Your task to perform on an android device: turn off wifi Image 0: 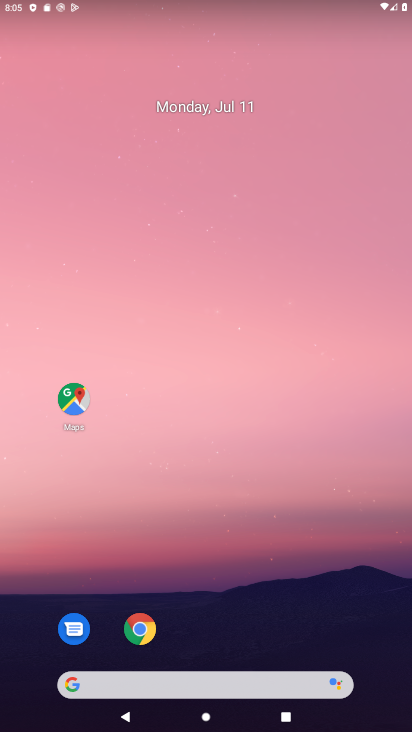
Step 0: drag from (218, 676) to (209, 113)
Your task to perform on an android device: turn off wifi Image 1: 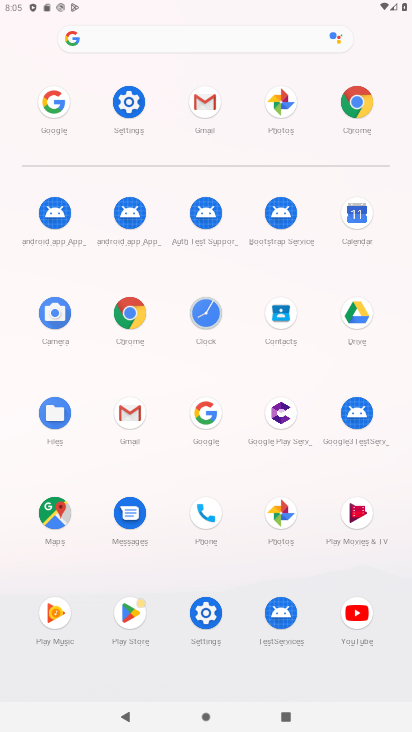
Step 1: click (128, 116)
Your task to perform on an android device: turn off wifi Image 2: 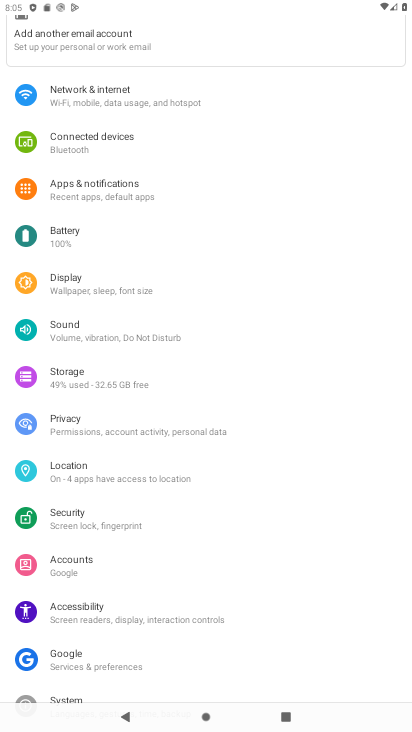
Step 2: click (149, 88)
Your task to perform on an android device: turn off wifi Image 3: 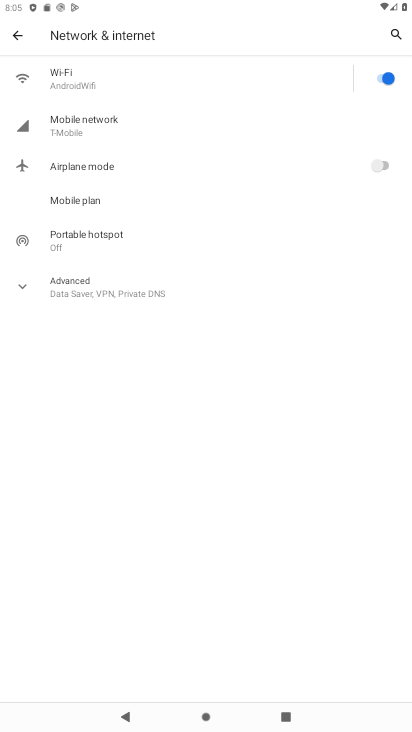
Step 3: click (375, 77)
Your task to perform on an android device: turn off wifi Image 4: 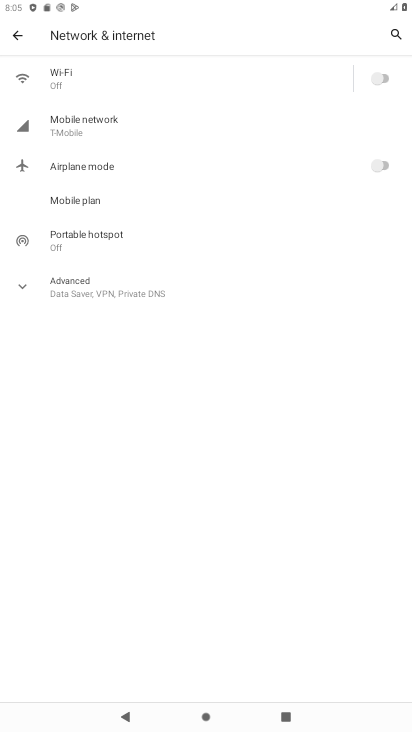
Step 4: task complete